Your task to perform on an android device: Search for Mexican restaurants on Maps Image 0: 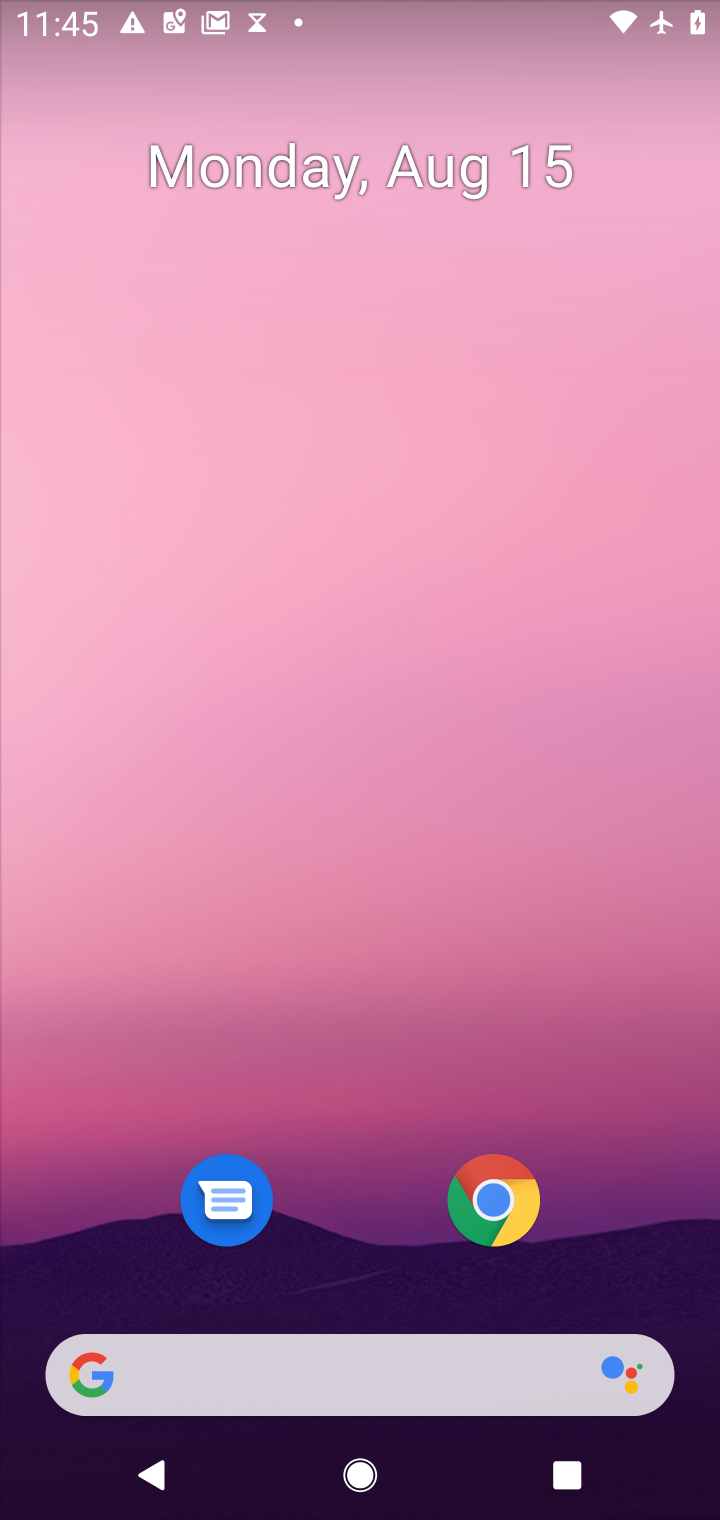
Step 0: drag from (326, 1242) to (336, 324)
Your task to perform on an android device: Search for Mexican restaurants on Maps Image 1: 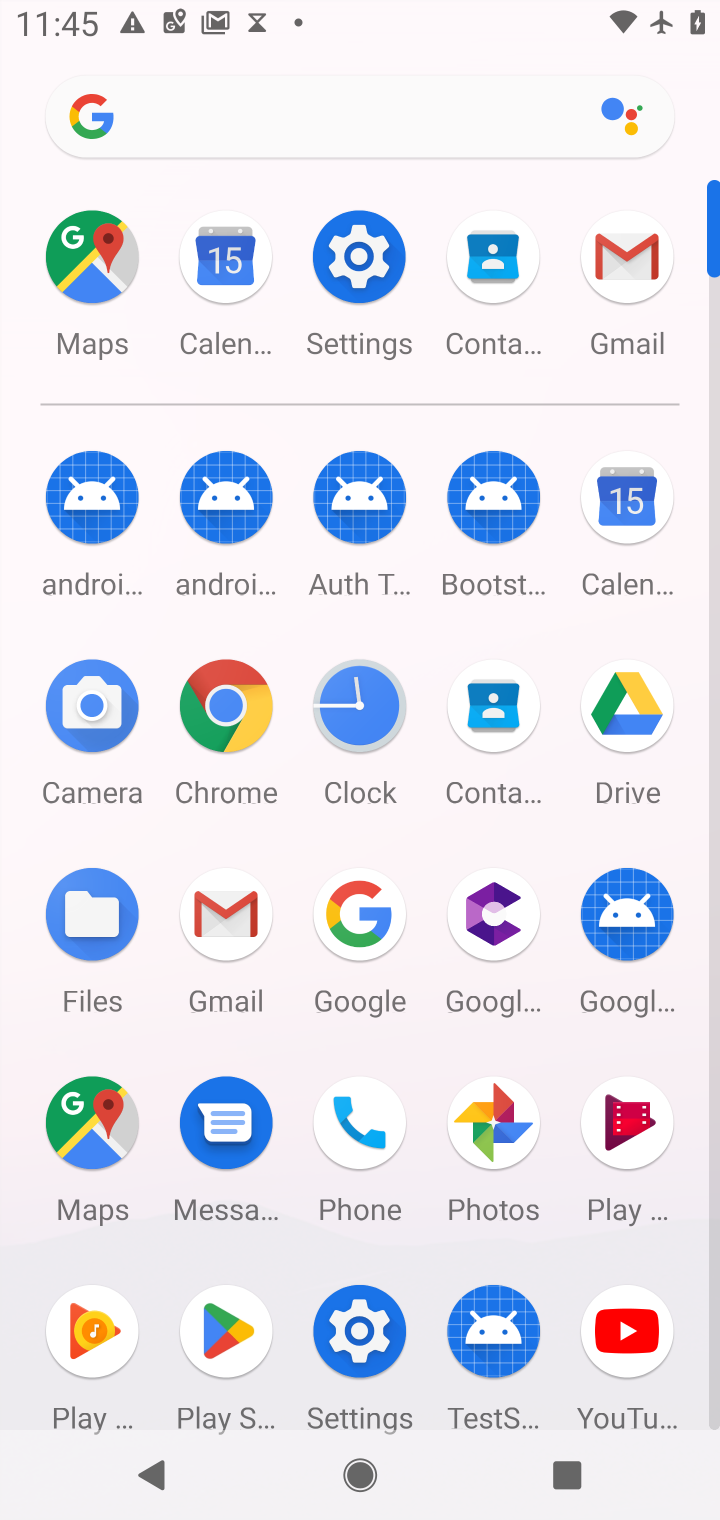
Step 1: click (92, 1130)
Your task to perform on an android device: Search for Mexican restaurants on Maps Image 2: 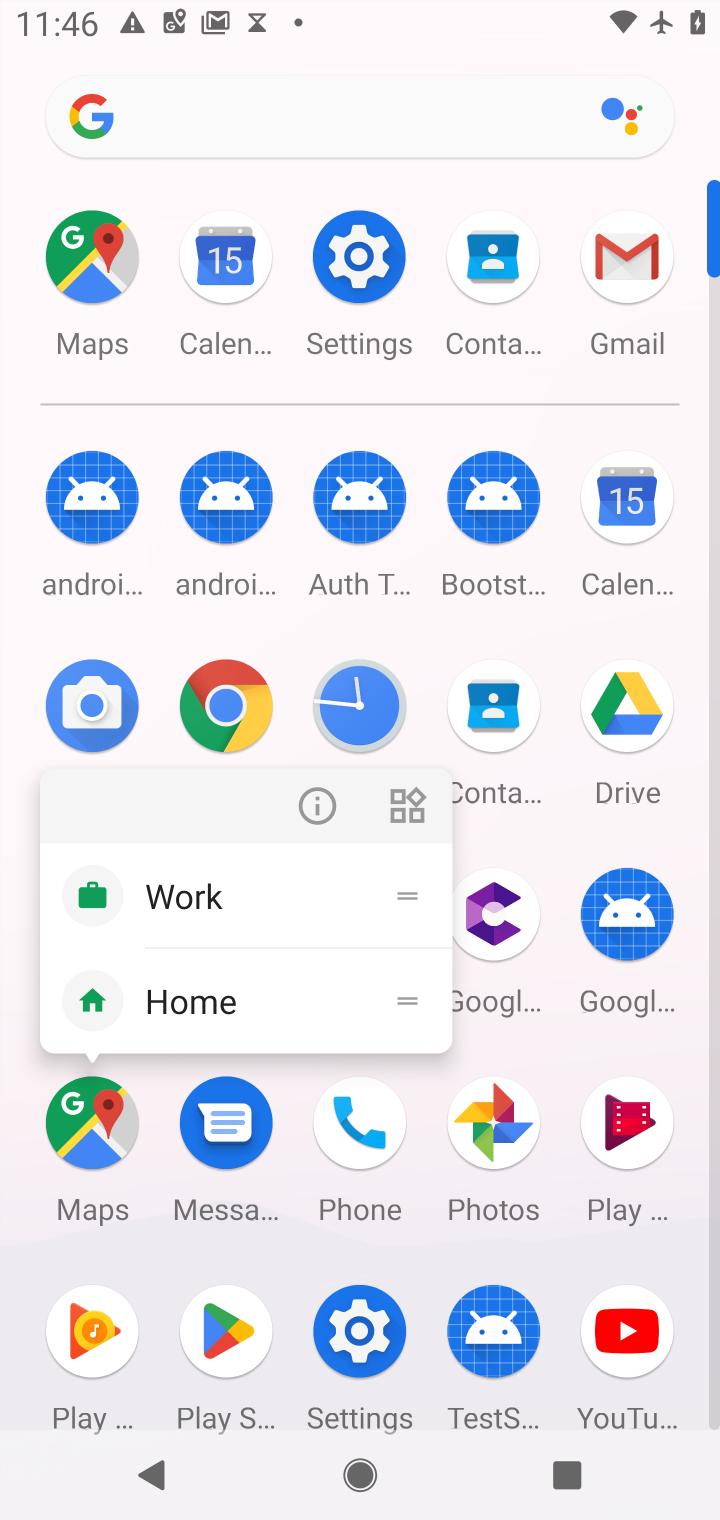
Step 2: click (74, 1153)
Your task to perform on an android device: Search for Mexican restaurants on Maps Image 3: 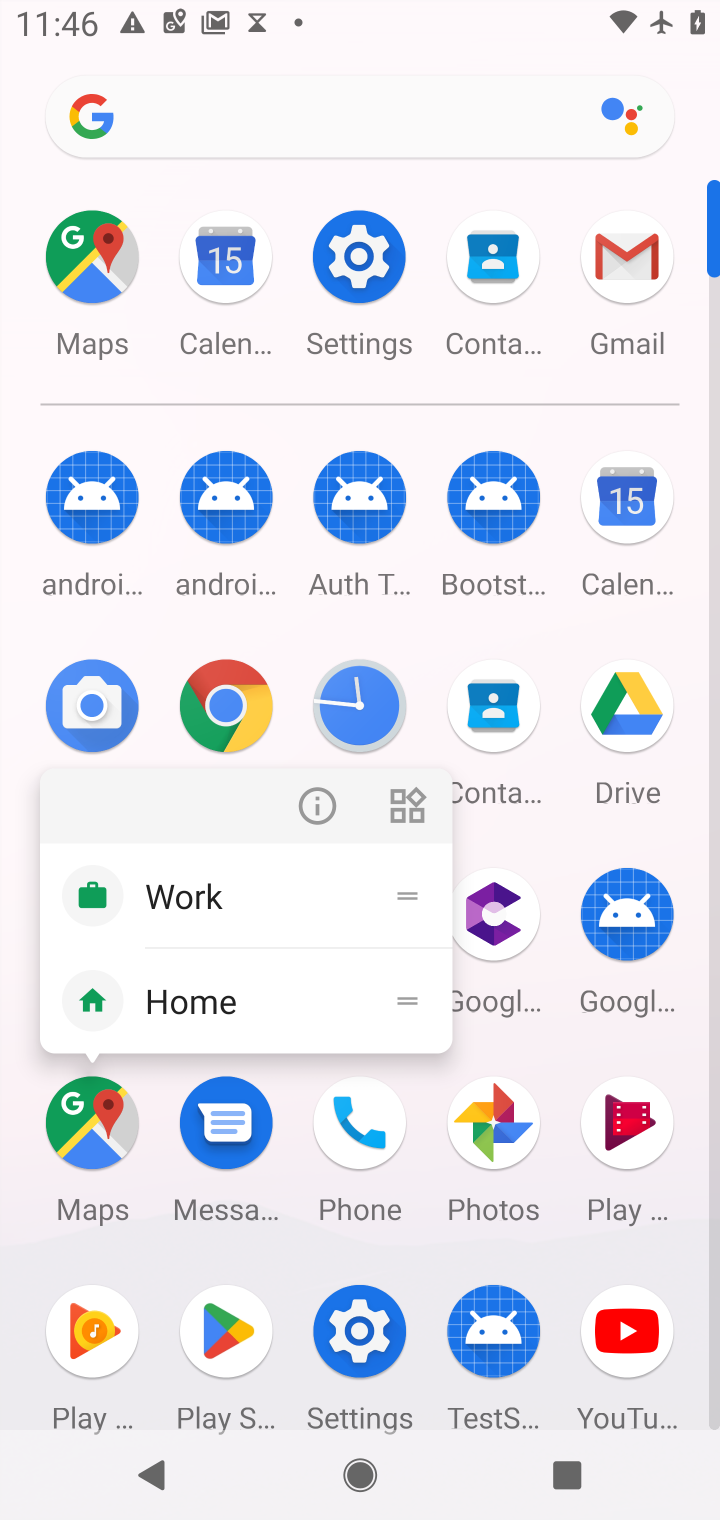
Step 3: click (74, 1153)
Your task to perform on an android device: Search for Mexican restaurants on Maps Image 4: 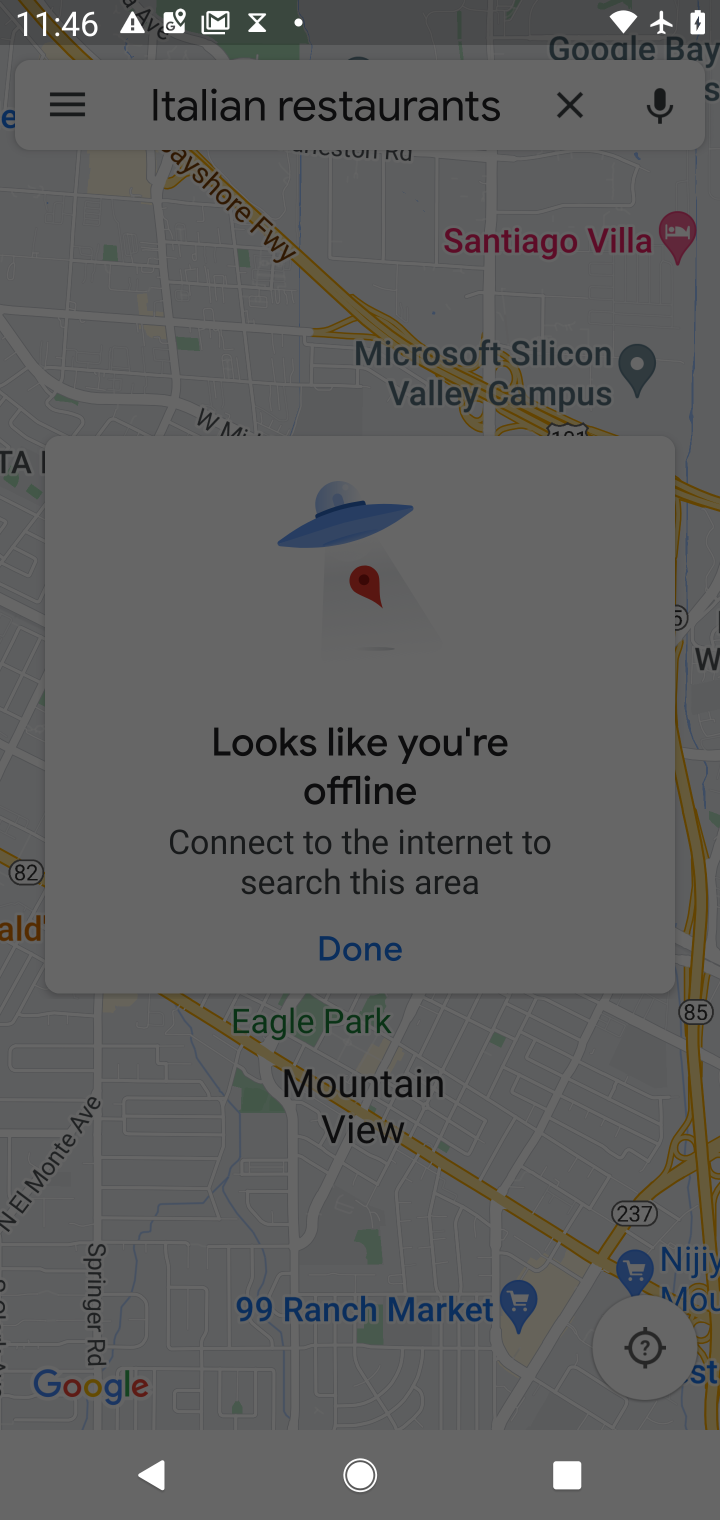
Step 4: click (386, 92)
Your task to perform on an android device: Search for Mexican restaurants on Maps Image 5: 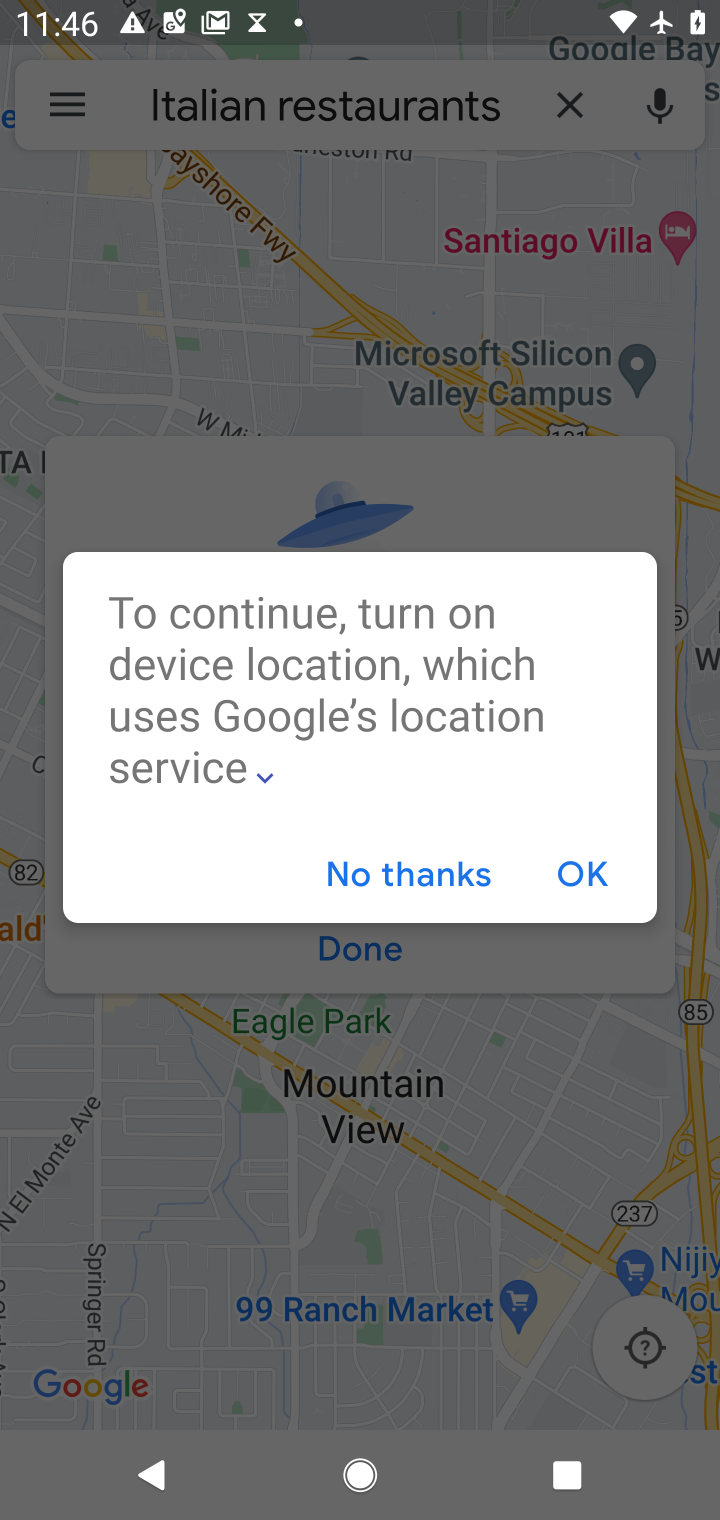
Step 5: click (568, 863)
Your task to perform on an android device: Search for Mexican restaurants on Maps Image 6: 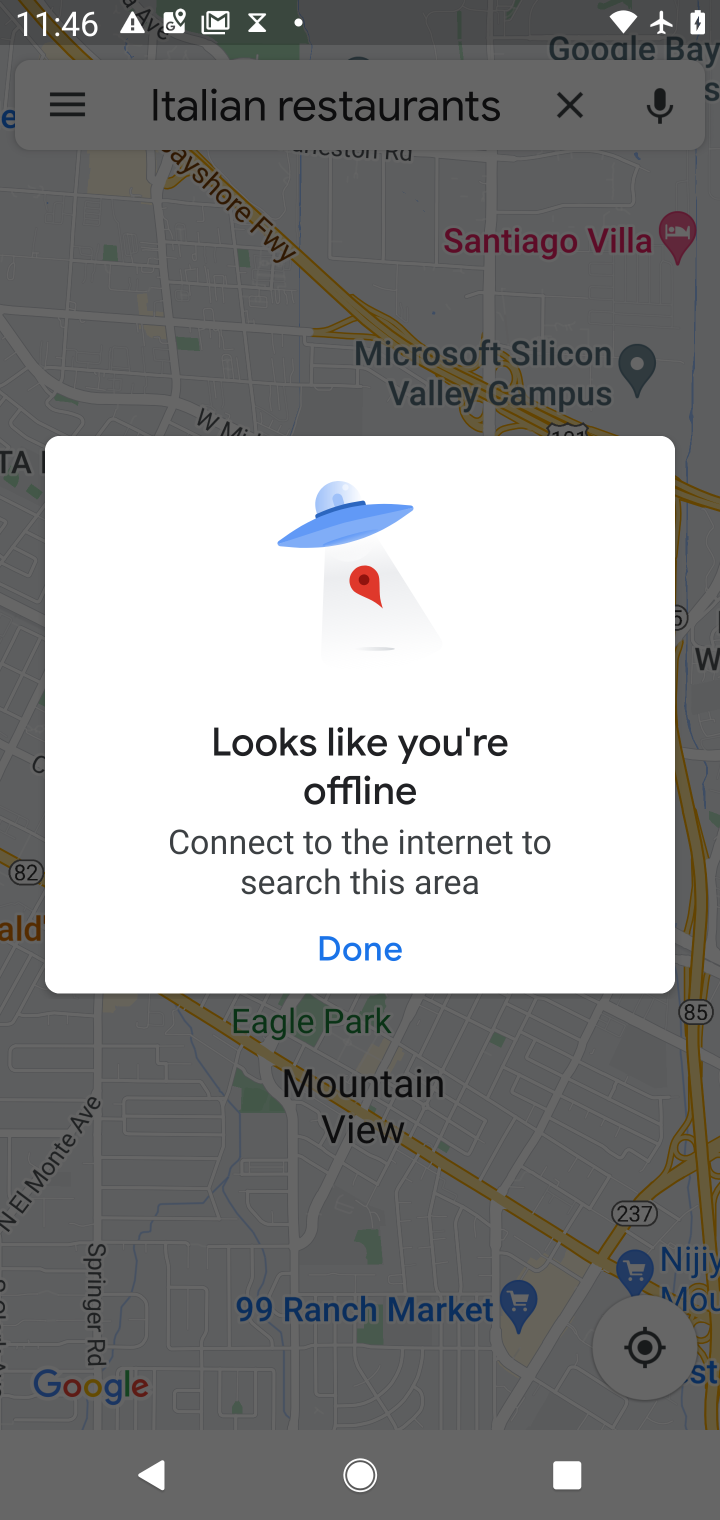
Step 6: click (378, 940)
Your task to perform on an android device: Search for Mexican restaurants on Maps Image 7: 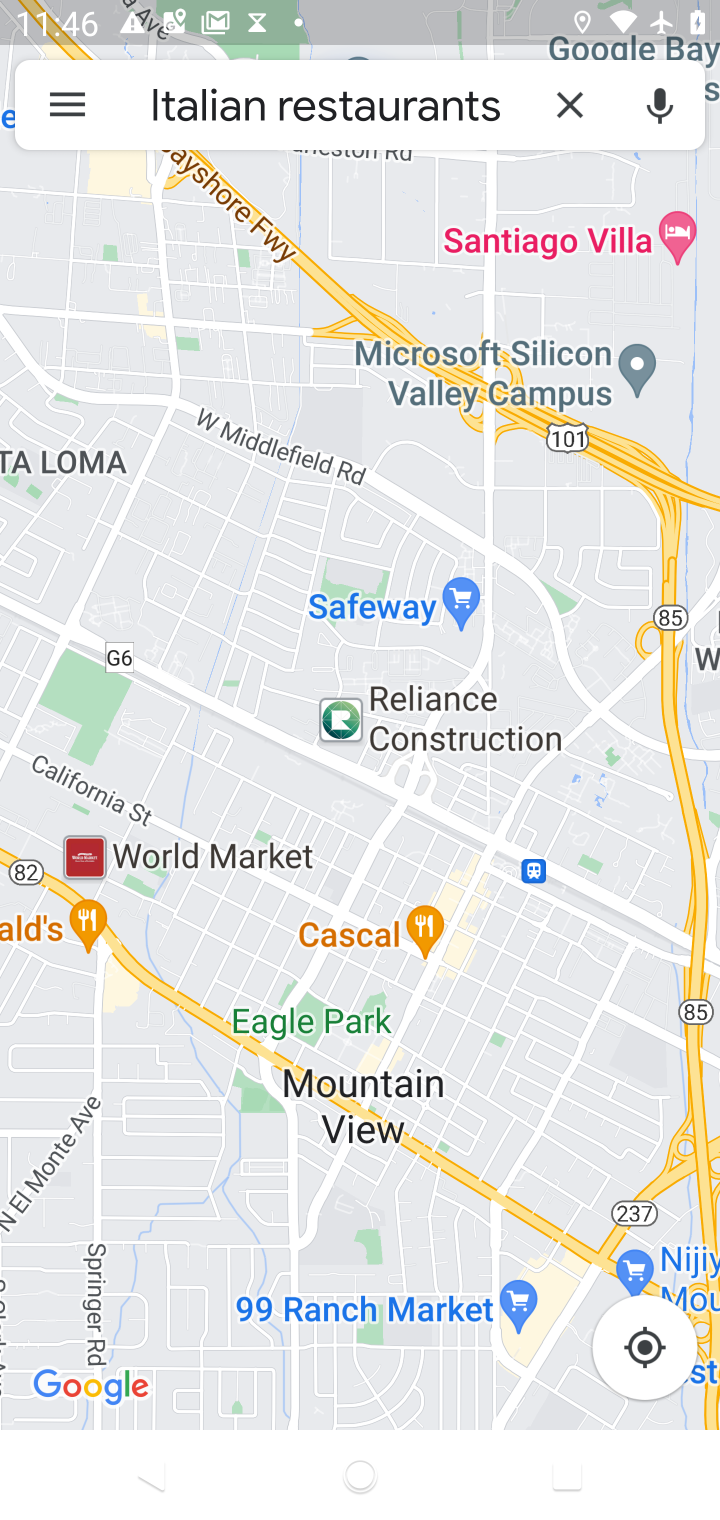
Step 7: click (574, 112)
Your task to perform on an android device: Search for Mexican restaurants on Maps Image 8: 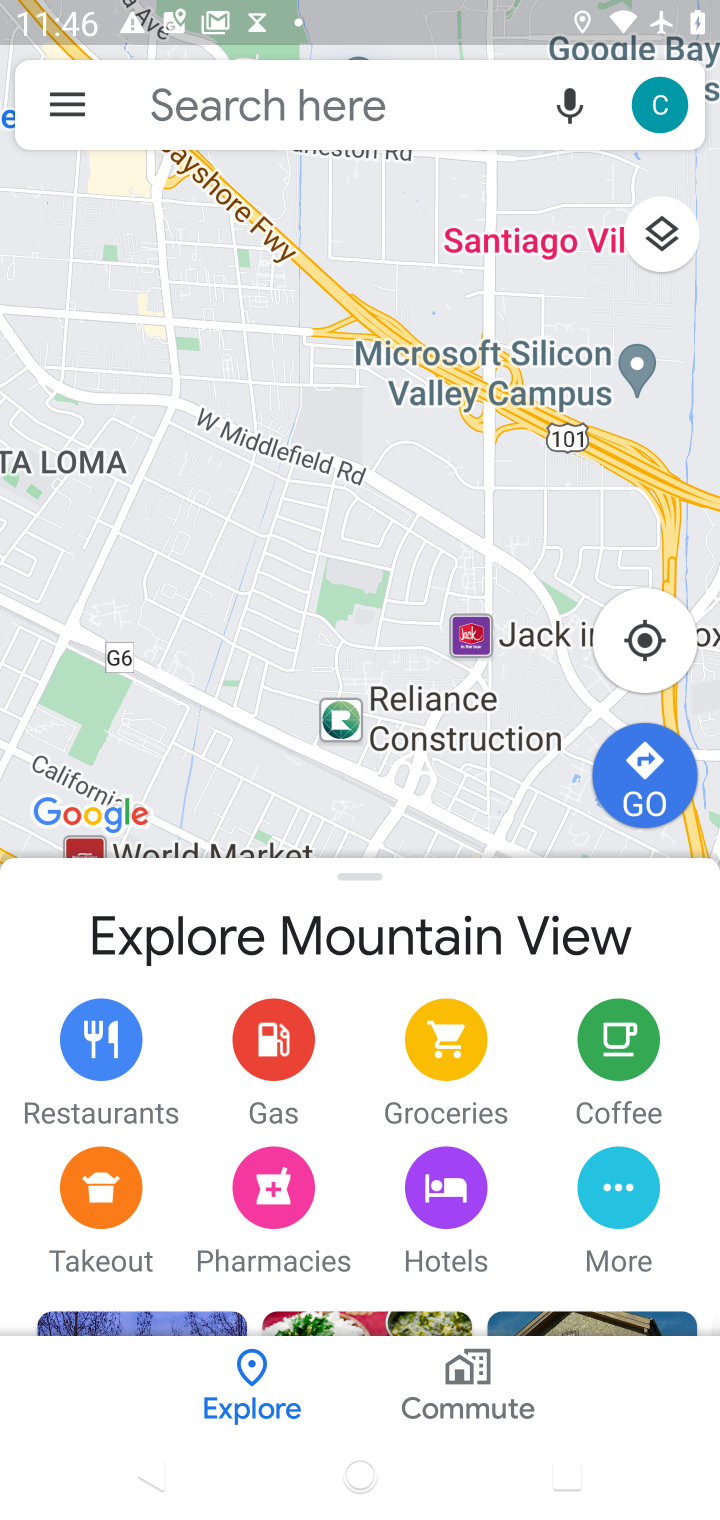
Step 8: click (314, 120)
Your task to perform on an android device: Search for Mexican restaurants on Maps Image 9: 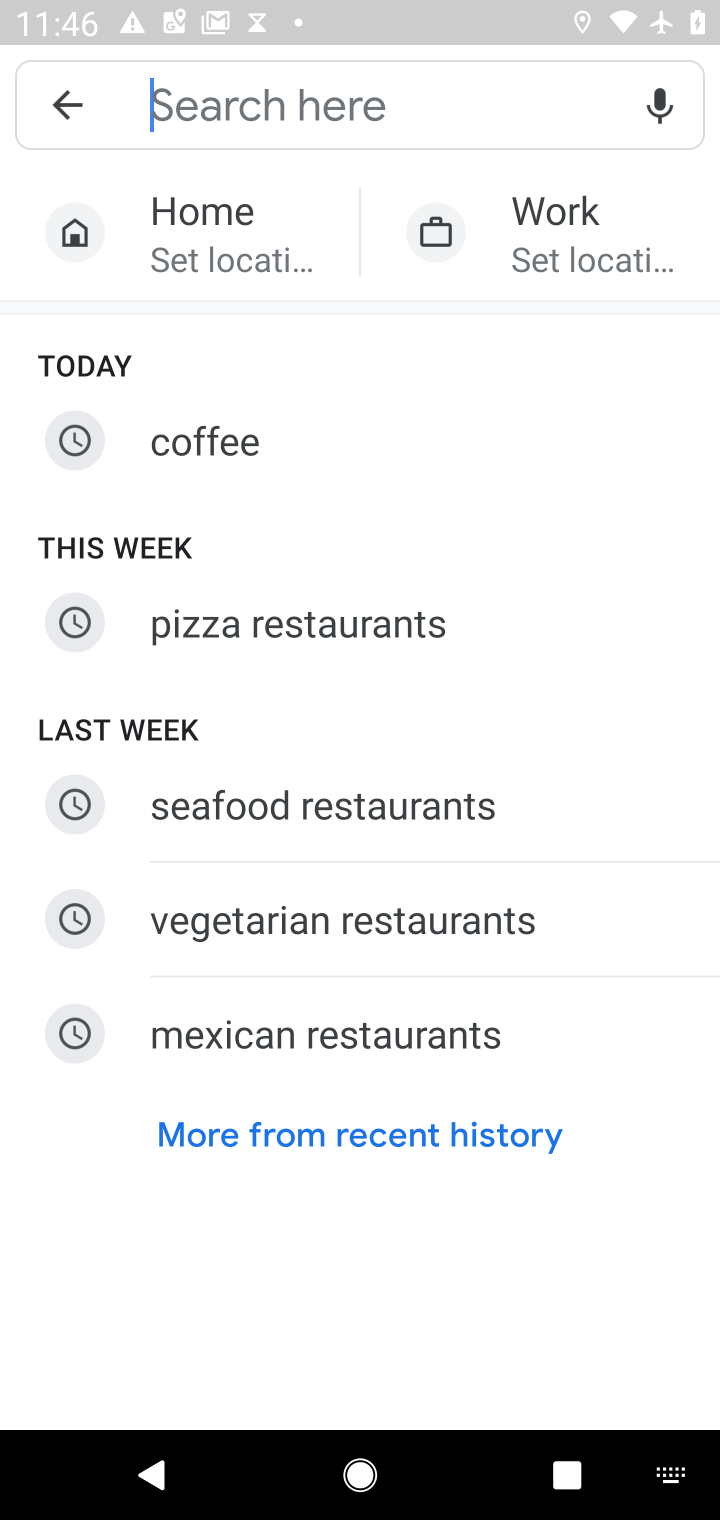
Step 9: type "Mexican restaurants"
Your task to perform on an android device: Search for Mexican restaurants on Maps Image 10: 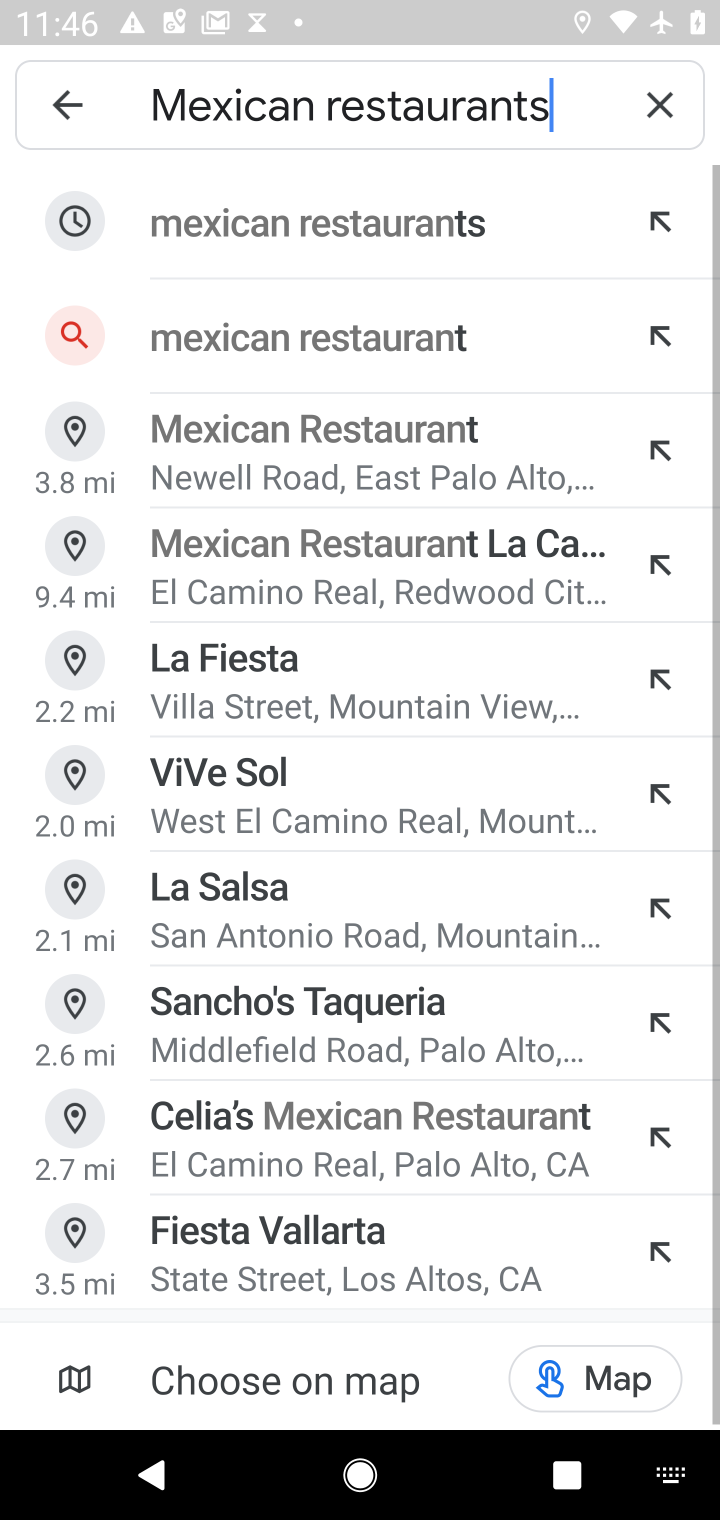
Step 10: type ""
Your task to perform on an android device: Search for Mexican restaurants on Maps Image 11: 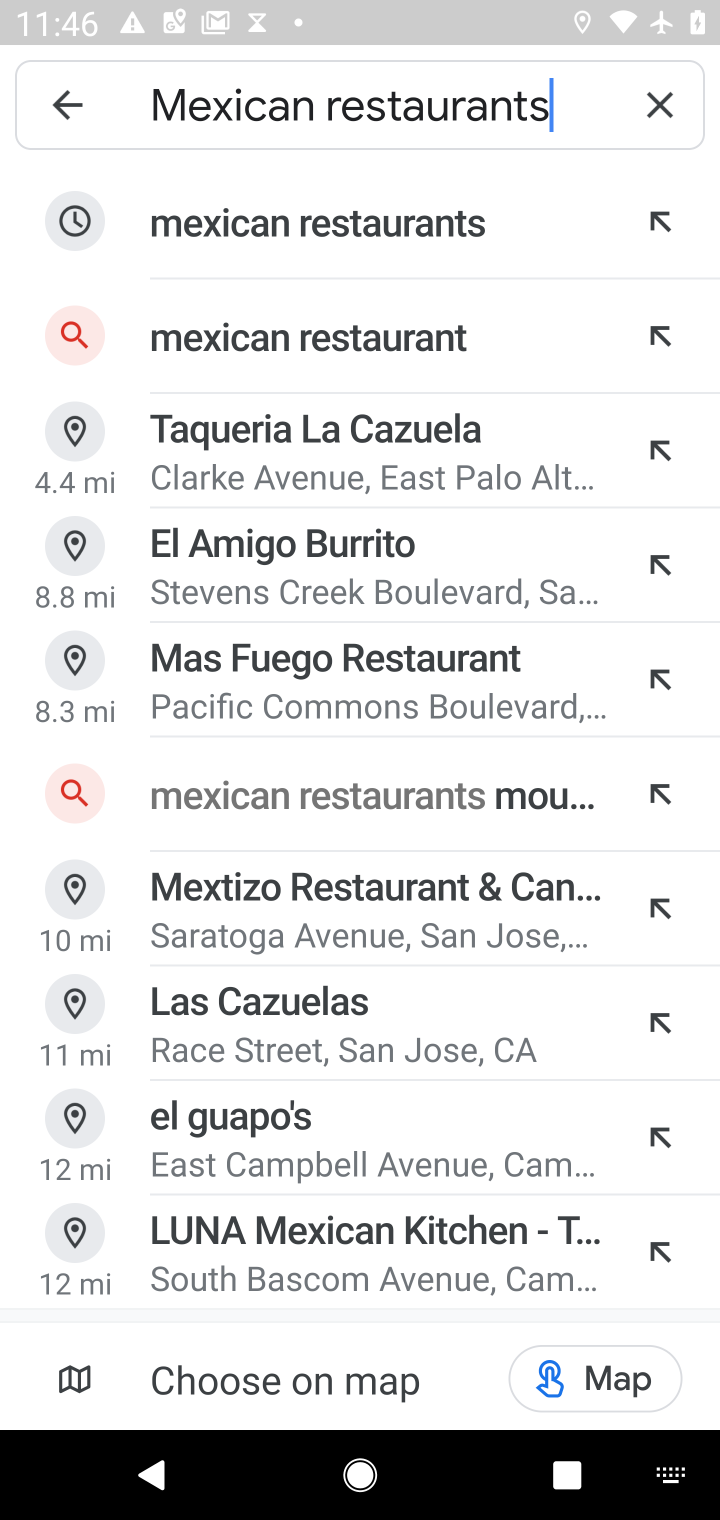
Step 11: click (342, 204)
Your task to perform on an android device: Search for Mexican restaurants on Maps Image 12: 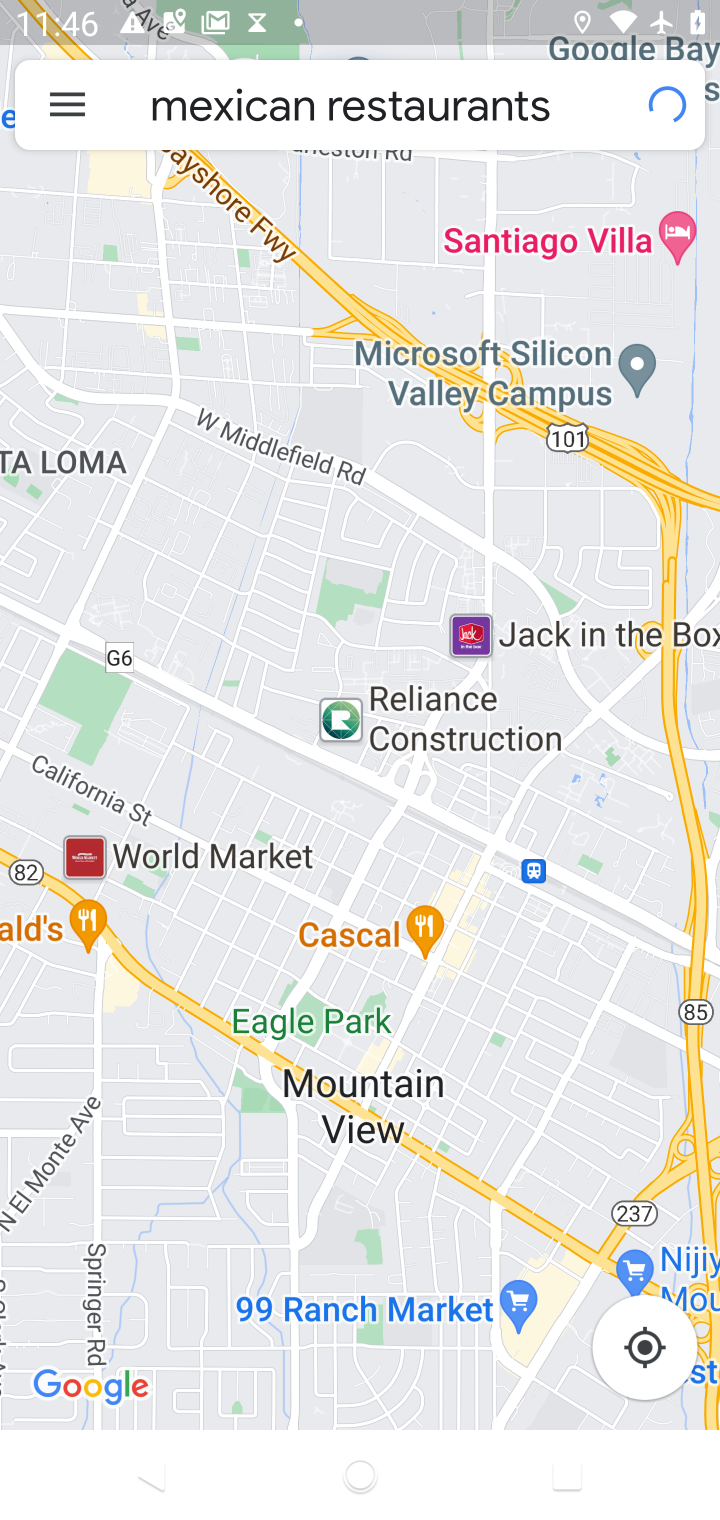
Step 12: task complete